Your task to perform on an android device: Open Google Maps Image 0: 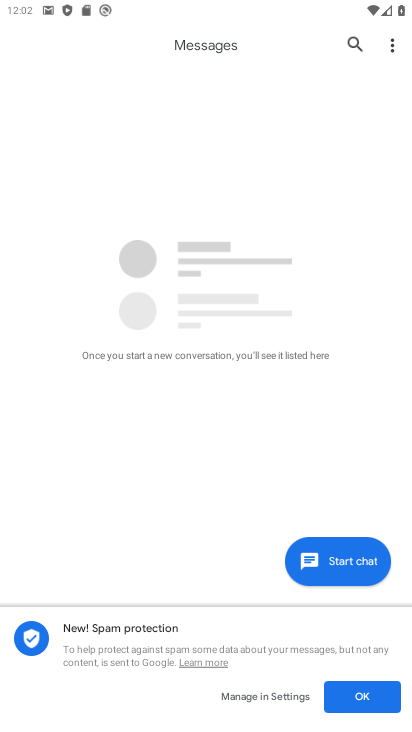
Step 0: press home button
Your task to perform on an android device: Open Google Maps Image 1: 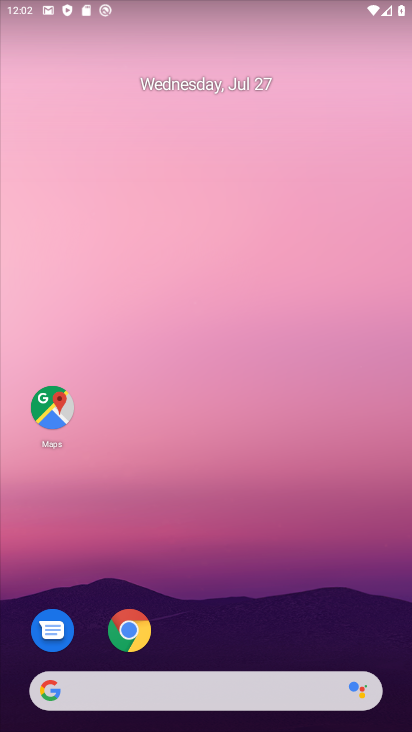
Step 1: click (57, 411)
Your task to perform on an android device: Open Google Maps Image 2: 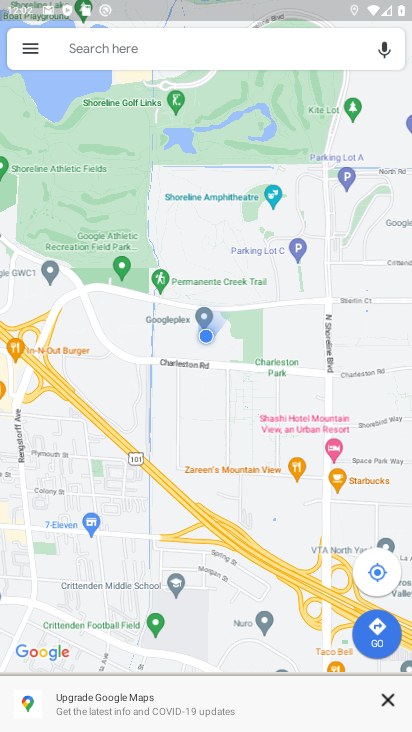
Step 2: task complete